Your task to perform on an android device: What is the recent news? Image 0: 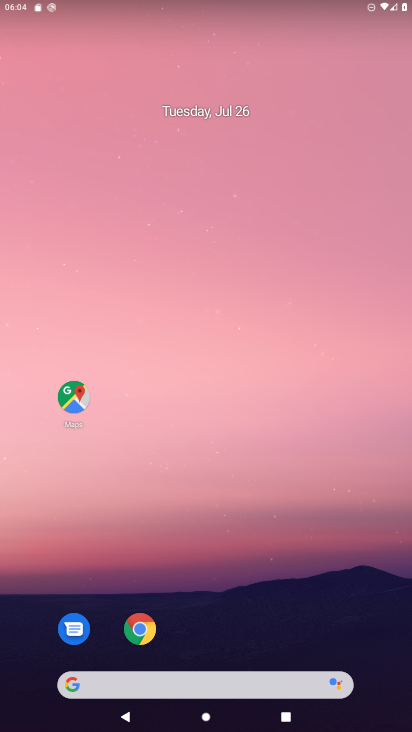
Step 0: drag from (173, 611) to (241, 168)
Your task to perform on an android device: What is the recent news? Image 1: 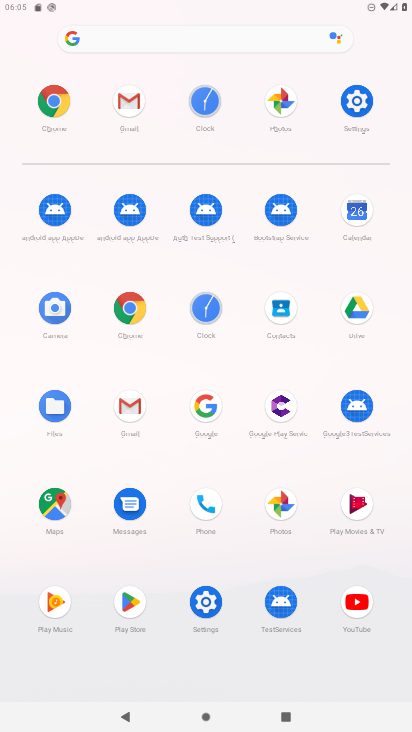
Step 1: click (200, 415)
Your task to perform on an android device: What is the recent news? Image 2: 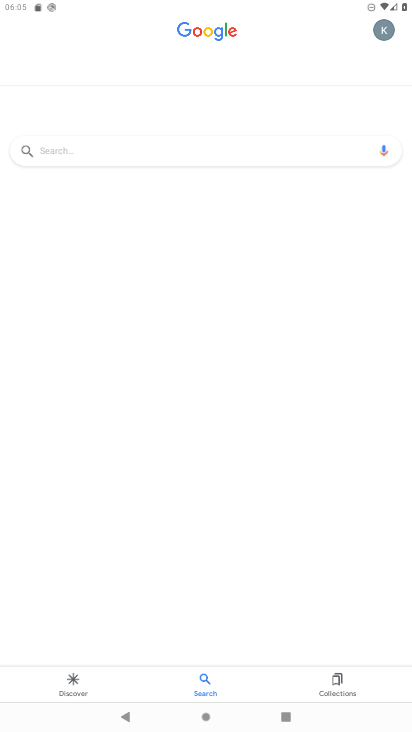
Step 2: click (87, 144)
Your task to perform on an android device: What is the recent news? Image 3: 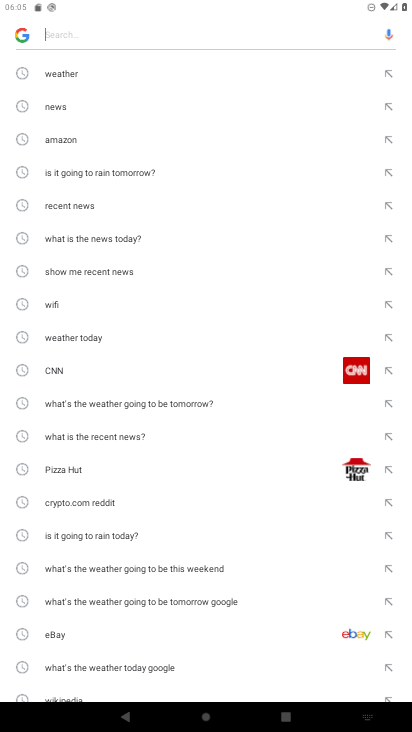
Step 3: click (72, 202)
Your task to perform on an android device: What is the recent news? Image 4: 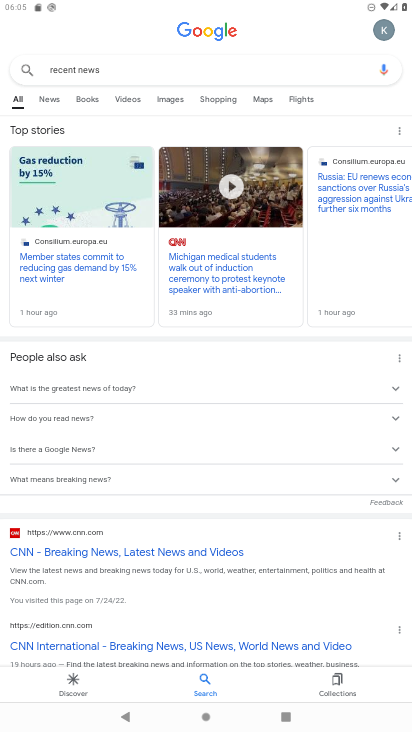
Step 4: task complete